Your task to perform on an android device: turn on data saver in the chrome app Image 0: 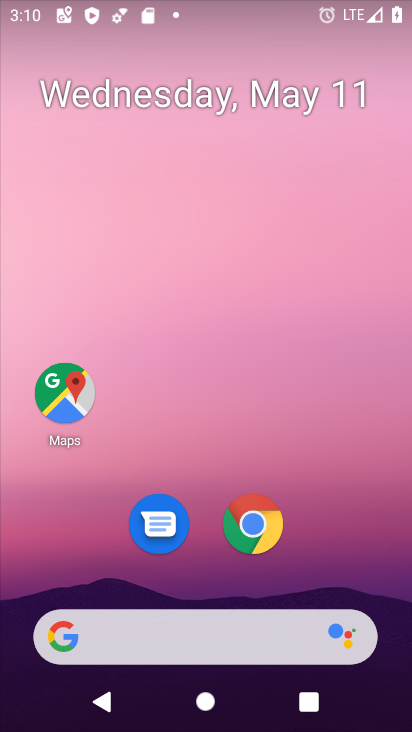
Step 0: click (269, 522)
Your task to perform on an android device: turn on data saver in the chrome app Image 1: 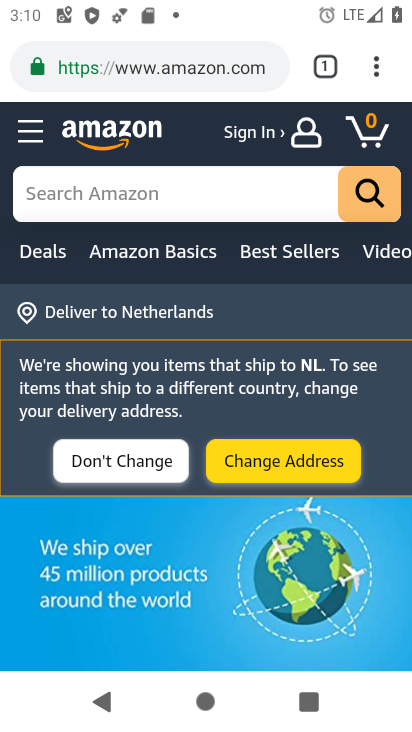
Step 1: click (375, 71)
Your task to perform on an android device: turn on data saver in the chrome app Image 2: 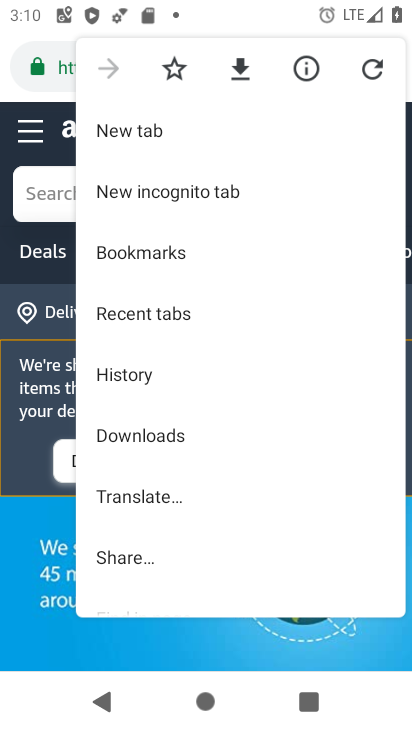
Step 2: drag from (236, 470) to (235, 204)
Your task to perform on an android device: turn on data saver in the chrome app Image 3: 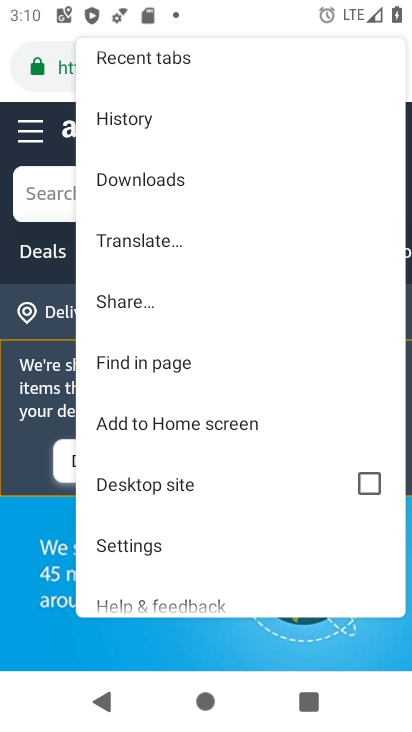
Step 3: click (160, 542)
Your task to perform on an android device: turn on data saver in the chrome app Image 4: 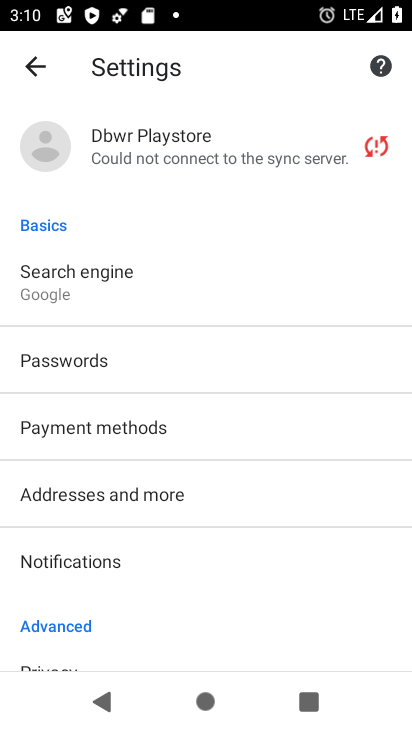
Step 4: drag from (171, 563) to (183, 138)
Your task to perform on an android device: turn on data saver in the chrome app Image 5: 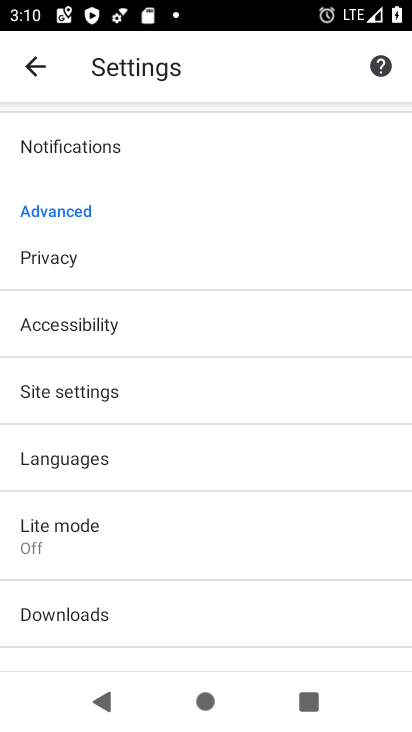
Step 5: click (121, 539)
Your task to perform on an android device: turn on data saver in the chrome app Image 6: 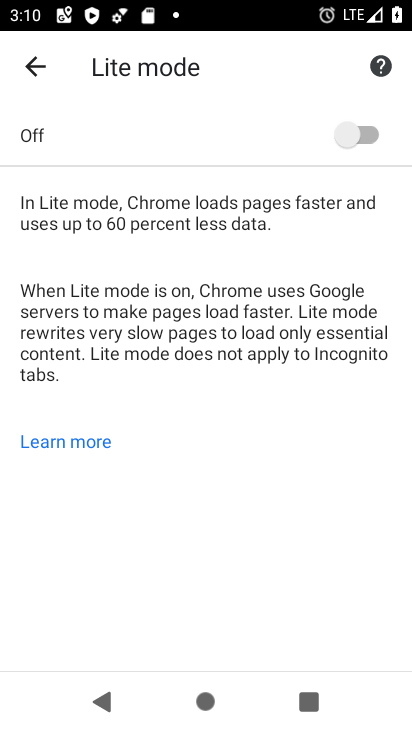
Step 6: click (361, 122)
Your task to perform on an android device: turn on data saver in the chrome app Image 7: 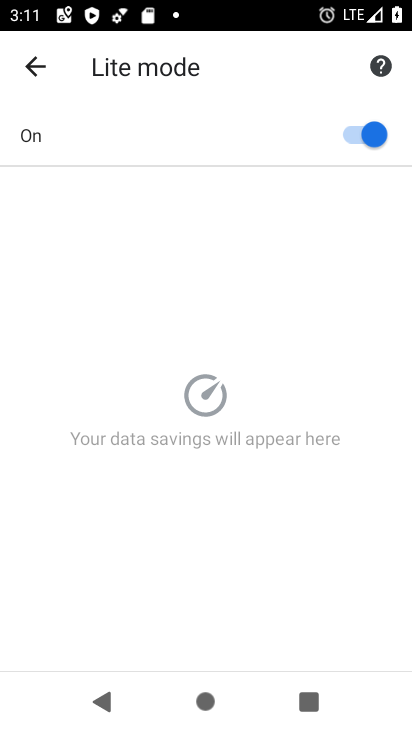
Step 7: task complete